Your task to perform on an android device: turn off wifi Image 0: 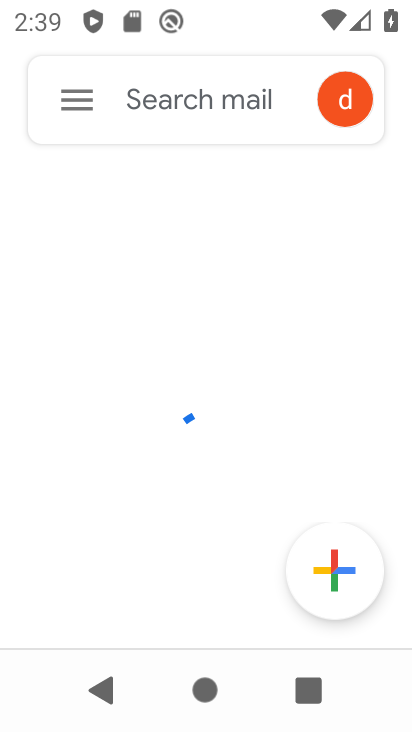
Step 0: press home button
Your task to perform on an android device: turn off wifi Image 1: 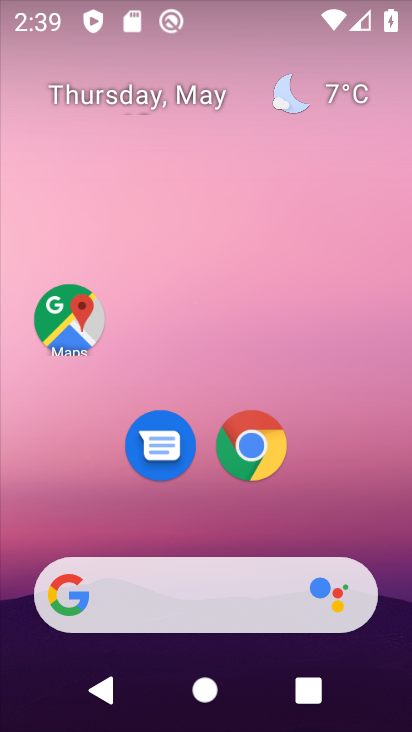
Step 1: drag from (379, 548) to (303, 15)
Your task to perform on an android device: turn off wifi Image 2: 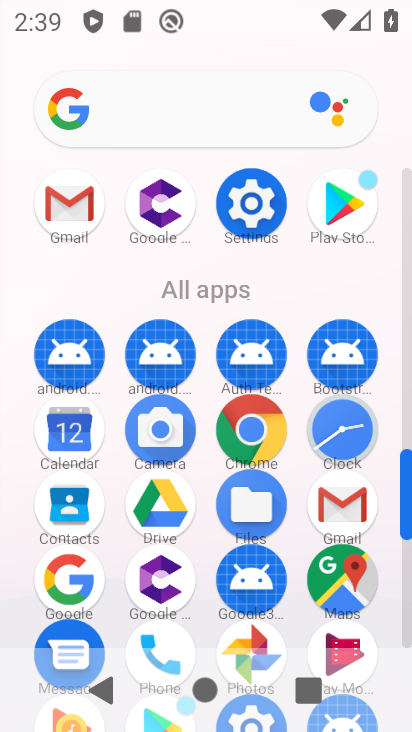
Step 2: click (250, 202)
Your task to perform on an android device: turn off wifi Image 3: 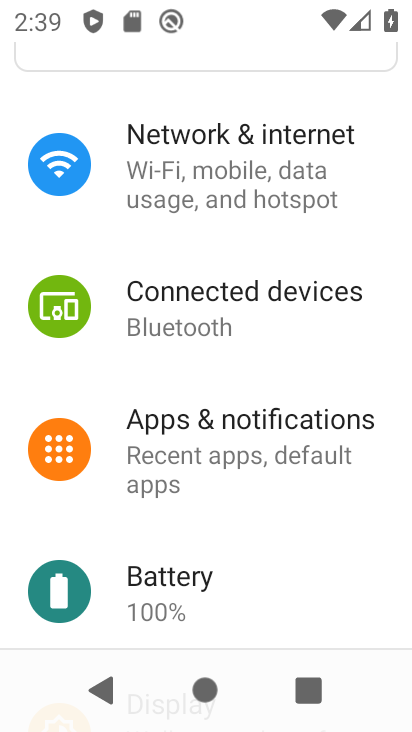
Step 3: click (200, 184)
Your task to perform on an android device: turn off wifi Image 4: 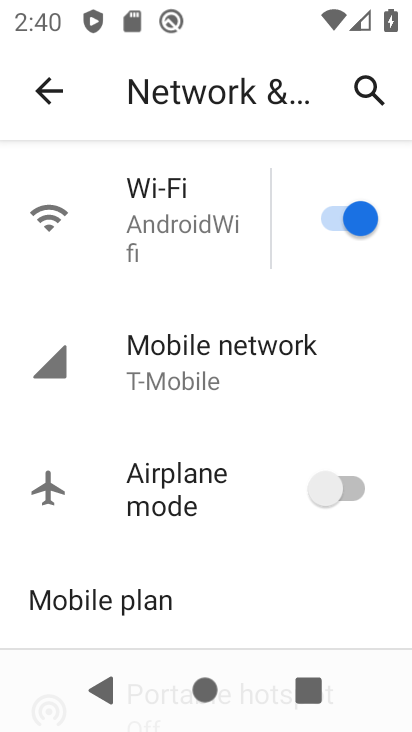
Step 4: click (369, 219)
Your task to perform on an android device: turn off wifi Image 5: 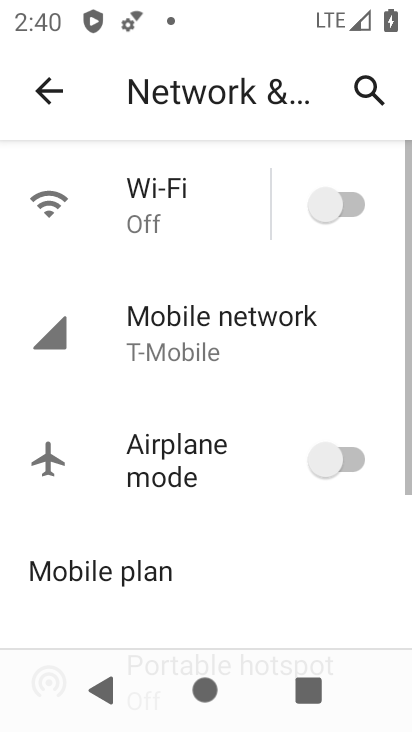
Step 5: task complete